Your task to perform on an android device: delete browsing data in the chrome app Image 0: 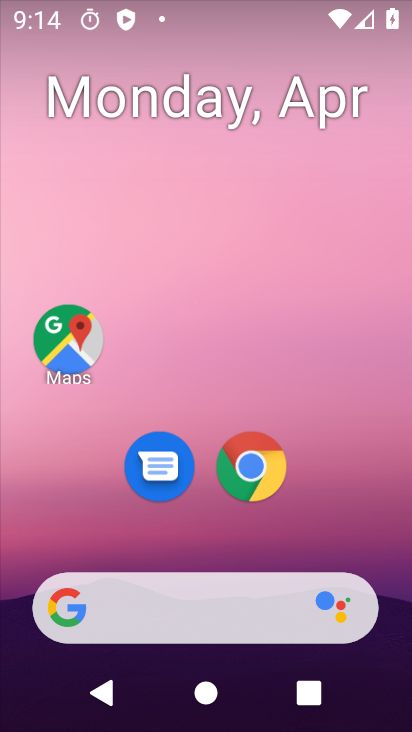
Step 0: click (226, 473)
Your task to perform on an android device: delete browsing data in the chrome app Image 1: 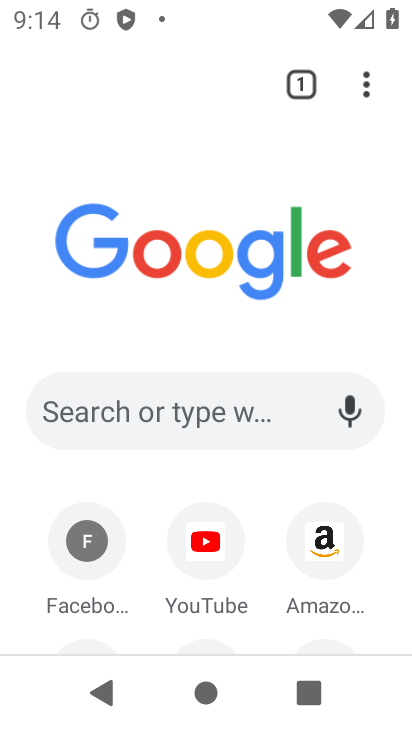
Step 1: click (364, 88)
Your task to perform on an android device: delete browsing data in the chrome app Image 2: 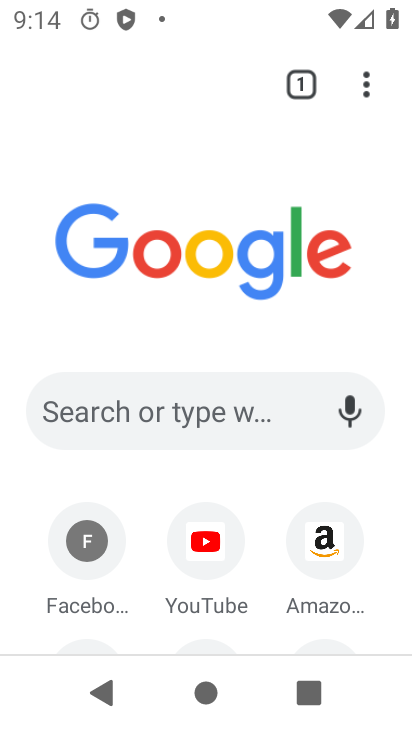
Step 2: click (367, 90)
Your task to perform on an android device: delete browsing data in the chrome app Image 3: 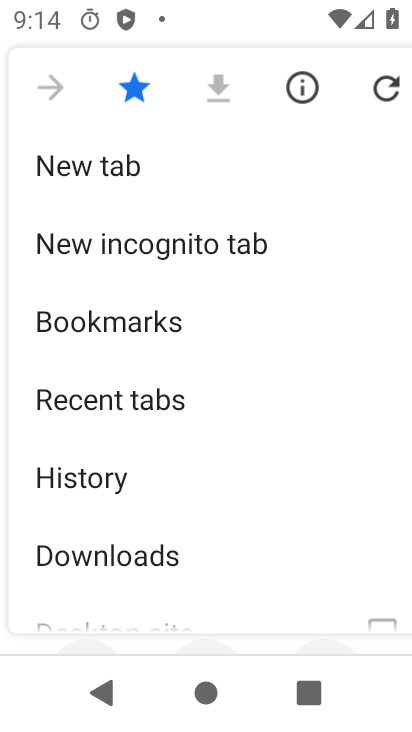
Step 3: click (115, 471)
Your task to perform on an android device: delete browsing data in the chrome app Image 4: 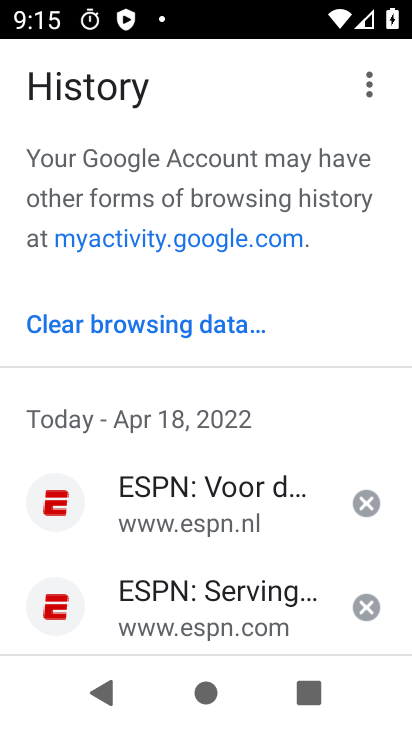
Step 4: click (122, 324)
Your task to perform on an android device: delete browsing data in the chrome app Image 5: 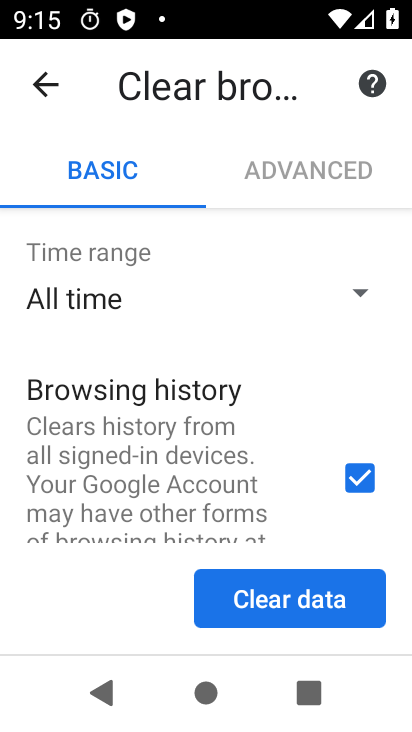
Step 5: click (249, 583)
Your task to perform on an android device: delete browsing data in the chrome app Image 6: 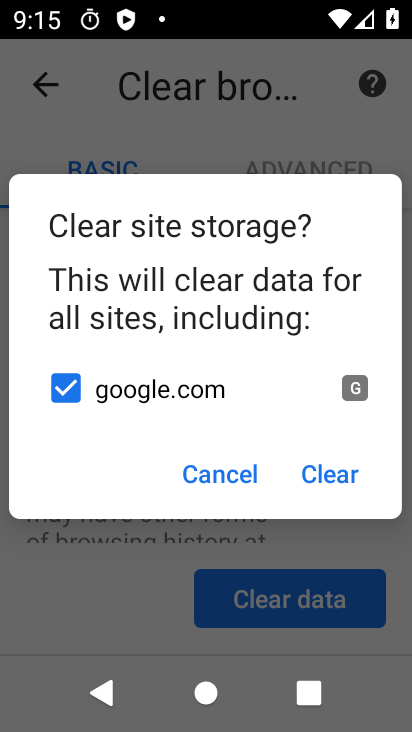
Step 6: click (318, 485)
Your task to perform on an android device: delete browsing data in the chrome app Image 7: 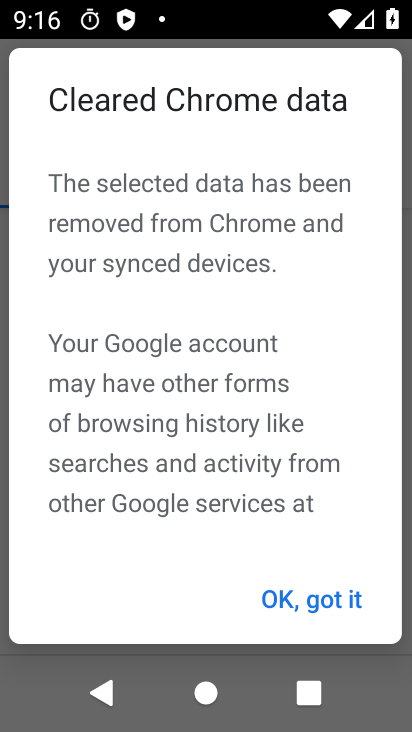
Step 7: click (281, 578)
Your task to perform on an android device: delete browsing data in the chrome app Image 8: 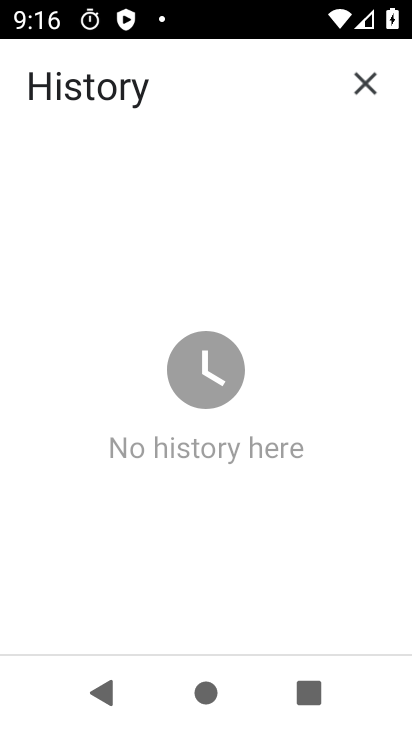
Step 8: task complete